Your task to perform on an android device: When is my next appointment? Image 0: 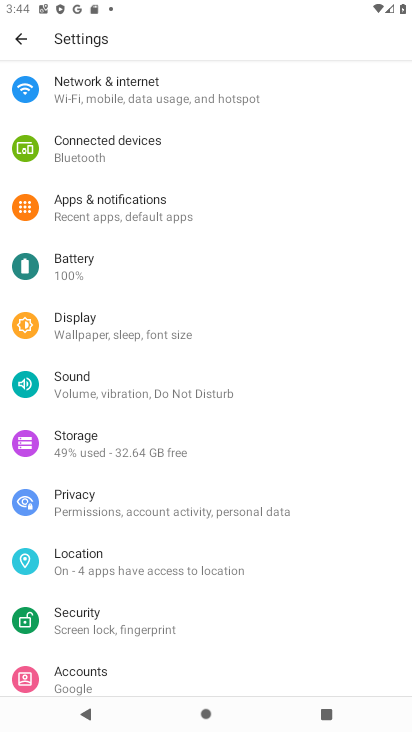
Step 0: press home button
Your task to perform on an android device: When is my next appointment? Image 1: 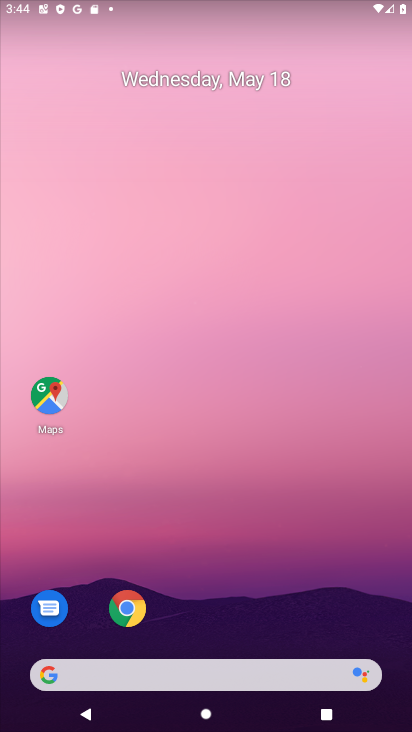
Step 1: drag from (250, 543) to (267, 135)
Your task to perform on an android device: When is my next appointment? Image 2: 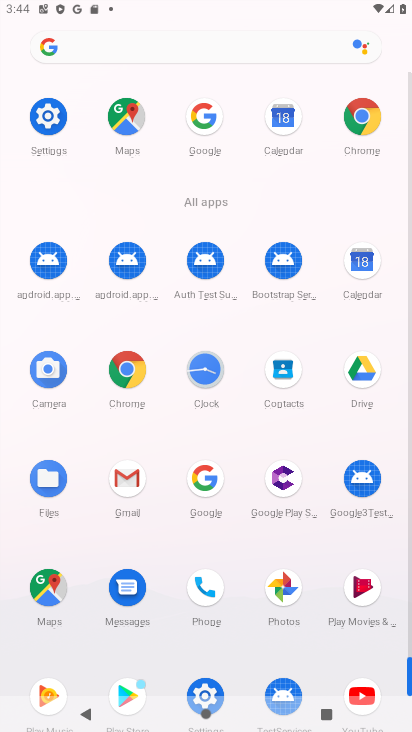
Step 2: click (364, 266)
Your task to perform on an android device: When is my next appointment? Image 3: 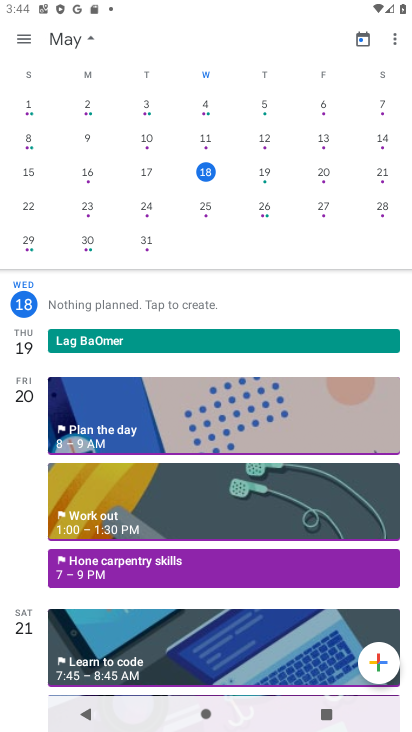
Step 3: drag from (200, 558) to (204, 485)
Your task to perform on an android device: When is my next appointment? Image 4: 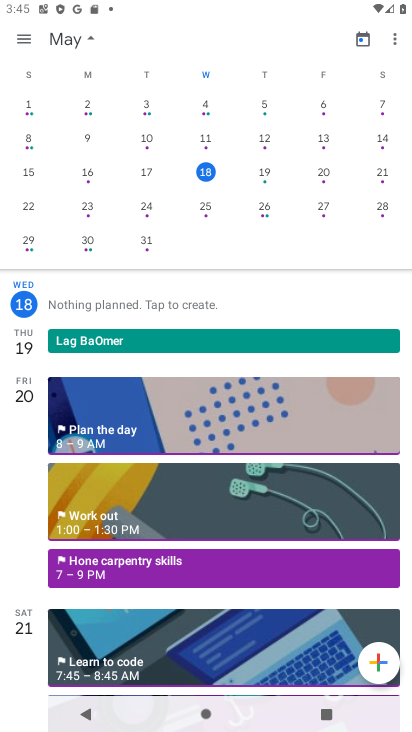
Step 4: click (261, 173)
Your task to perform on an android device: When is my next appointment? Image 5: 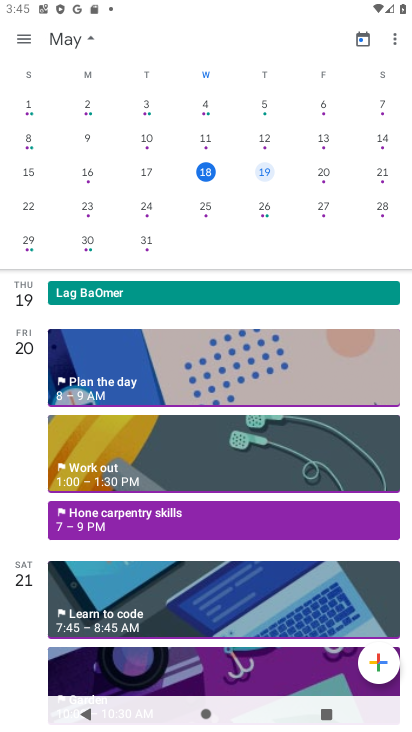
Step 5: click (323, 173)
Your task to perform on an android device: When is my next appointment? Image 6: 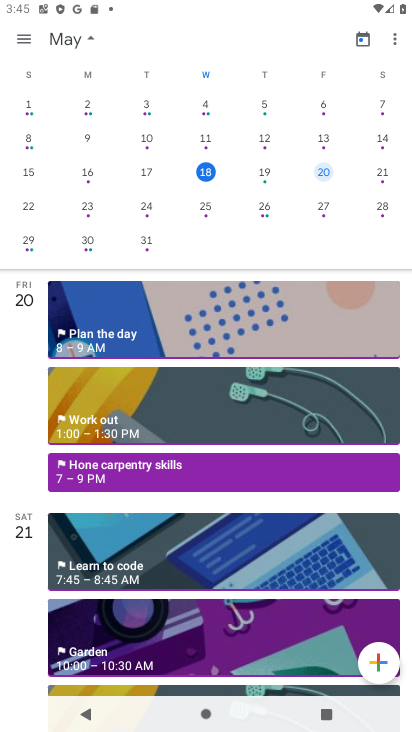
Step 6: task complete